Your task to perform on an android device: turn smart compose on in the gmail app Image 0: 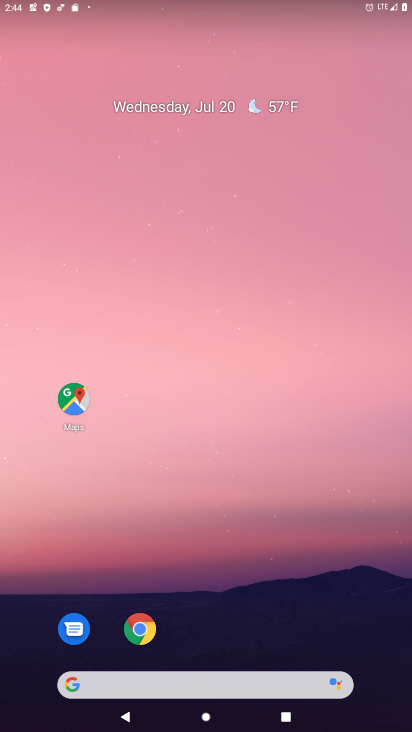
Step 0: drag from (371, 649) to (357, 78)
Your task to perform on an android device: turn smart compose on in the gmail app Image 1: 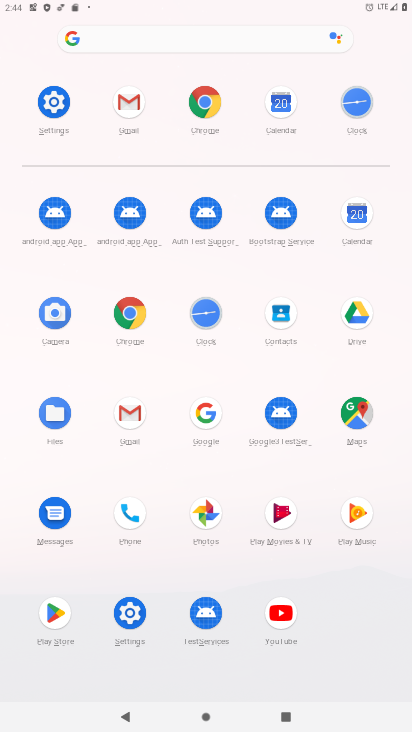
Step 1: click (127, 413)
Your task to perform on an android device: turn smart compose on in the gmail app Image 2: 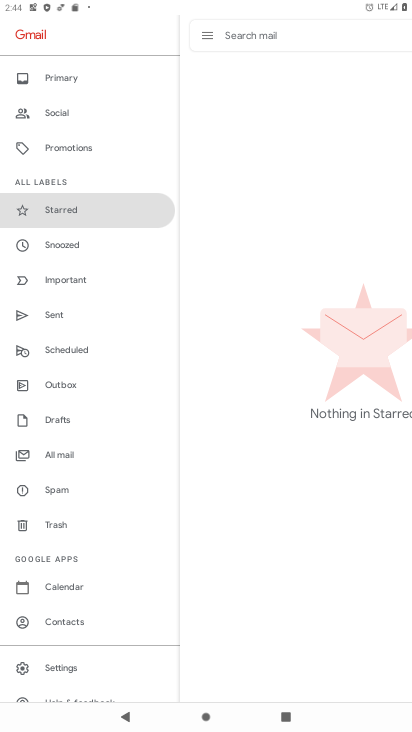
Step 2: click (44, 666)
Your task to perform on an android device: turn smart compose on in the gmail app Image 3: 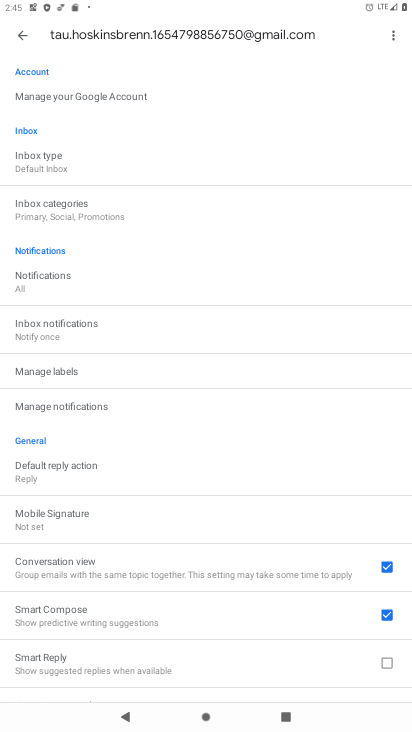
Step 3: task complete